Your task to perform on an android device: check android version Image 0: 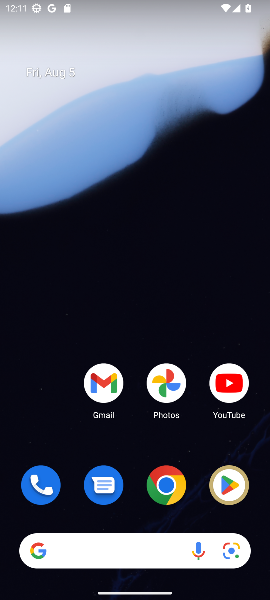
Step 0: drag from (63, 431) to (70, 128)
Your task to perform on an android device: check android version Image 1: 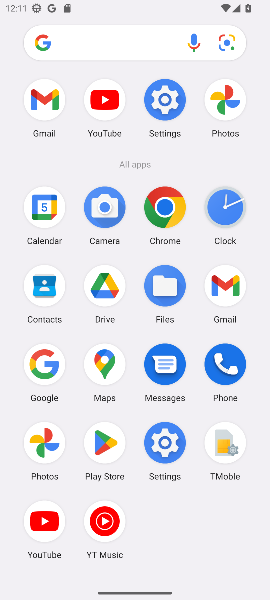
Step 1: click (166, 103)
Your task to perform on an android device: check android version Image 2: 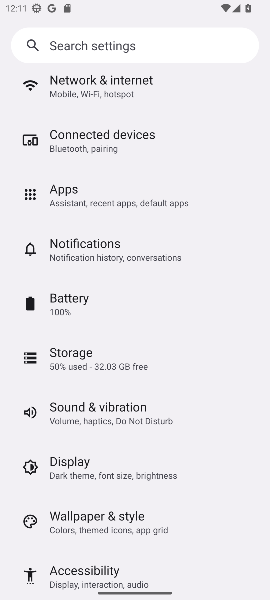
Step 2: drag from (182, 513) to (205, 142)
Your task to perform on an android device: check android version Image 3: 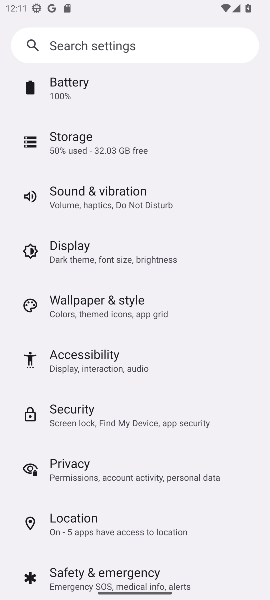
Step 3: drag from (207, 547) to (245, 140)
Your task to perform on an android device: check android version Image 4: 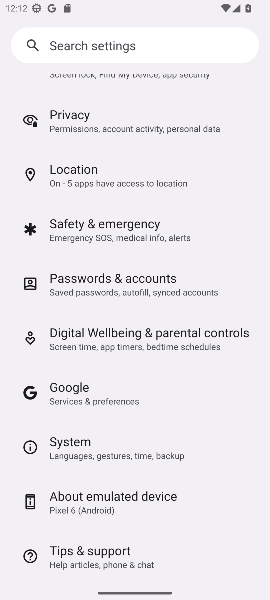
Step 4: click (106, 495)
Your task to perform on an android device: check android version Image 5: 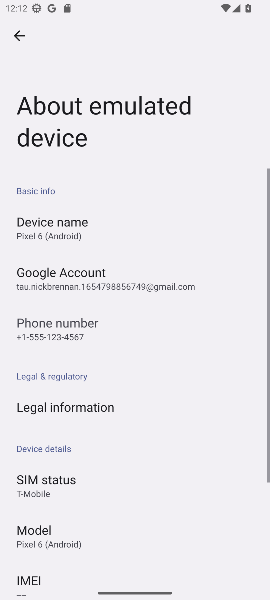
Step 5: drag from (93, 513) to (77, 167)
Your task to perform on an android device: check android version Image 6: 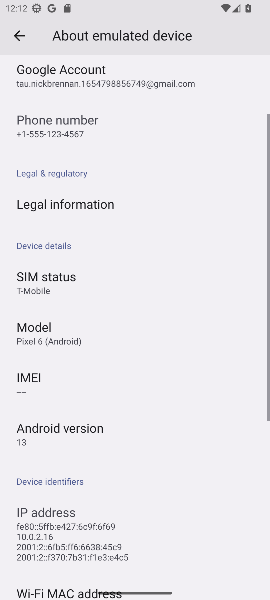
Step 6: click (69, 426)
Your task to perform on an android device: check android version Image 7: 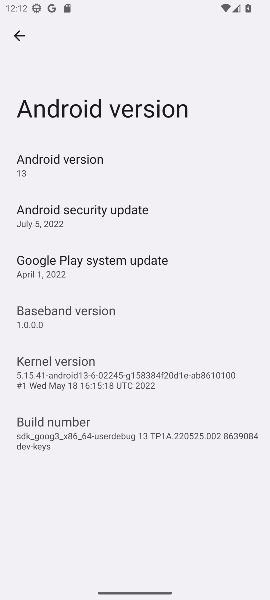
Step 7: task complete